Your task to perform on an android device: visit the assistant section in the google photos Image 0: 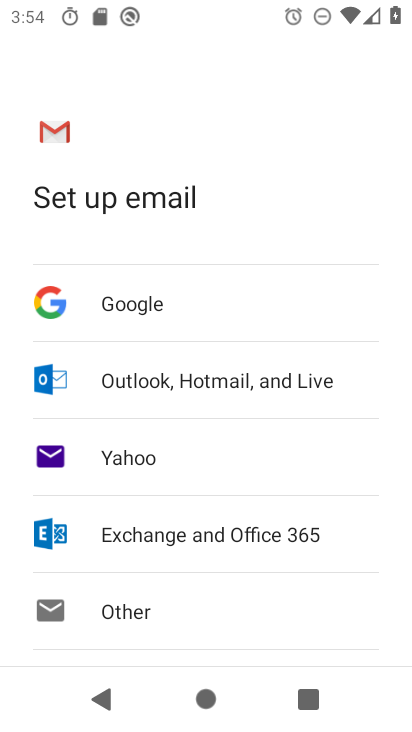
Step 0: press home button
Your task to perform on an android device: visit the assistant section in the google photos Image 1: 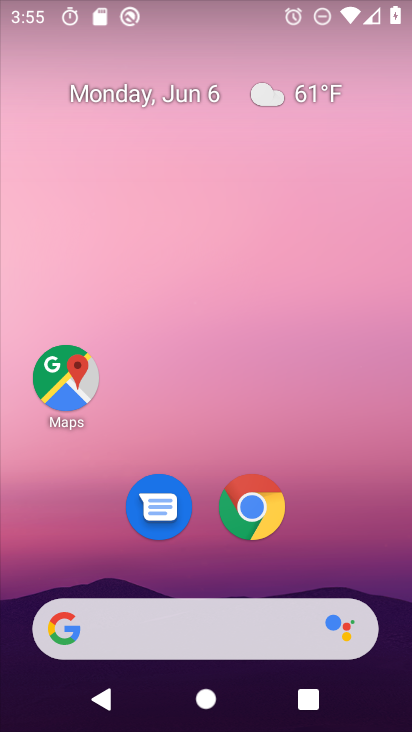
Step 1: drag from (202, 573) to (216, 131)
Your task to perform on an android device: visit the assistant section in the google photos Image 2: 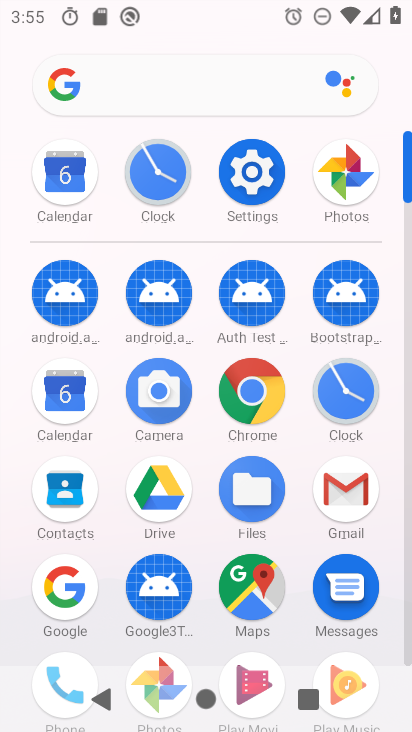
Step 2: click (335, 197)
Your task to perform on an android device: visit the assistant section in the google photos Image 3: 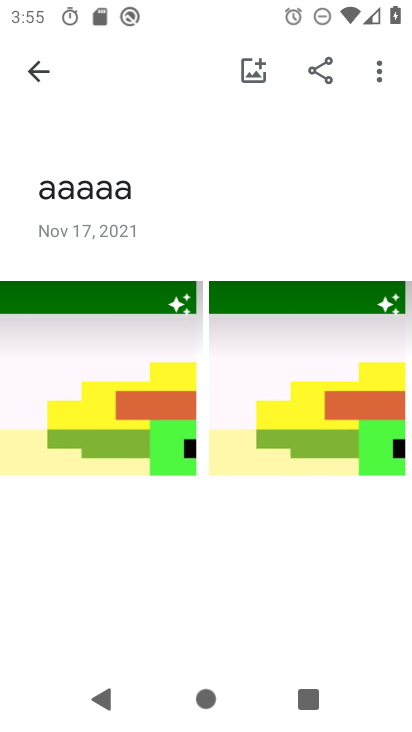
Step 3: click (47, 70)
Your task to perform on an android device: visit the assistant section in the google photos Image 4: 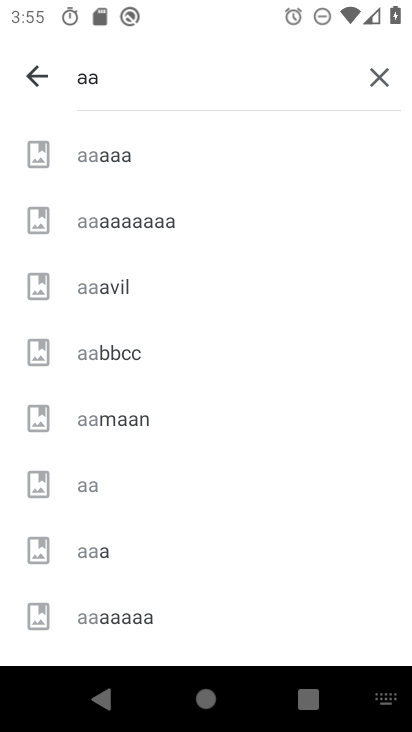
Step 4: click (377, 69)
Your task to perform on an android device: visit the assistant section in the google photos Image 5: 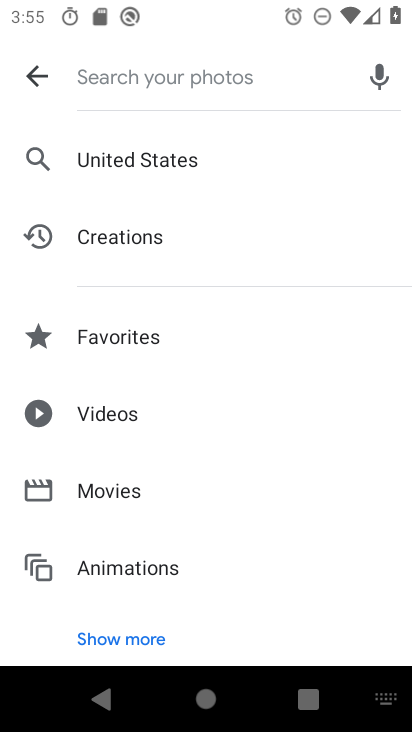
Step 5: click (47, 79)
Your task to perform on an android device: visit the assistant section in the google photos Image 6: 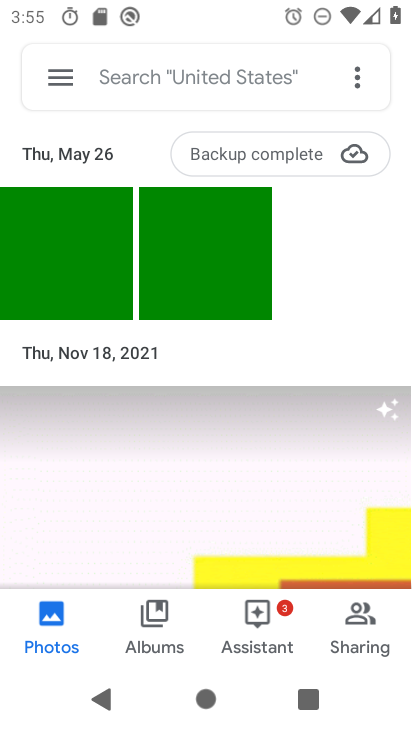
Step 6: click (240, 602)
Your task to perform on an android device: visit the assistant section in the google photos Image 7: 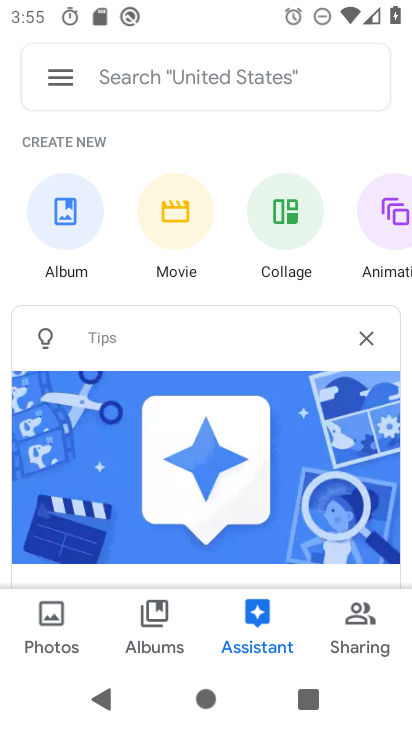
Step 7: task complete